Your task to perform on an android device: delete location history Image 0: 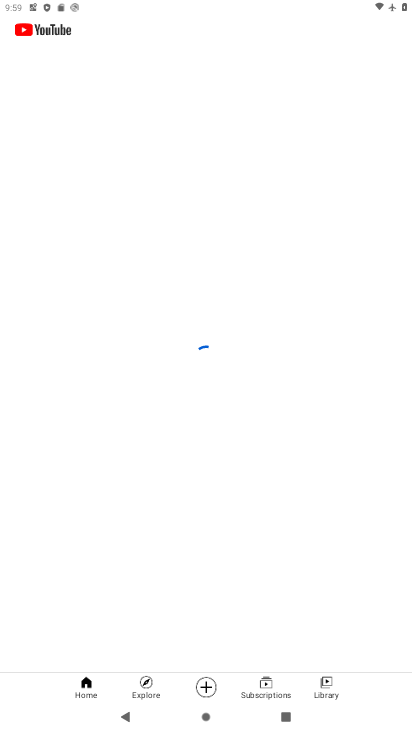
Step 0: drag from (294, 2) to (354, 8)
Your task to perform on an android device: delete location history Image 1: 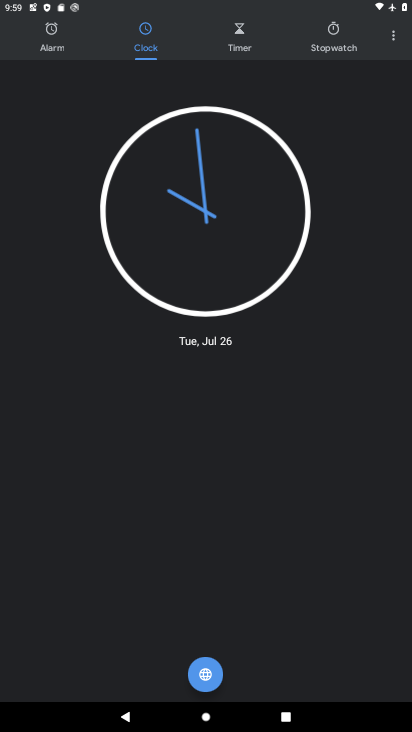
Step 1: press home button
Your task to perform on an android device: delete location history Image 2: 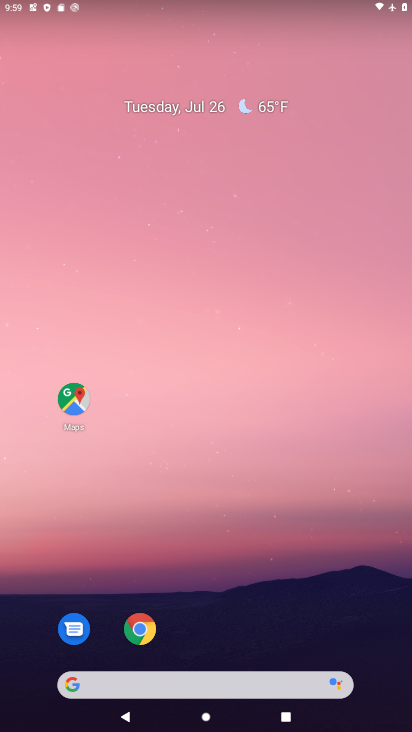
Step 2: drag from (239, 584) to (239, 71)
Your task to perform on an android device: delete location history Image 3: 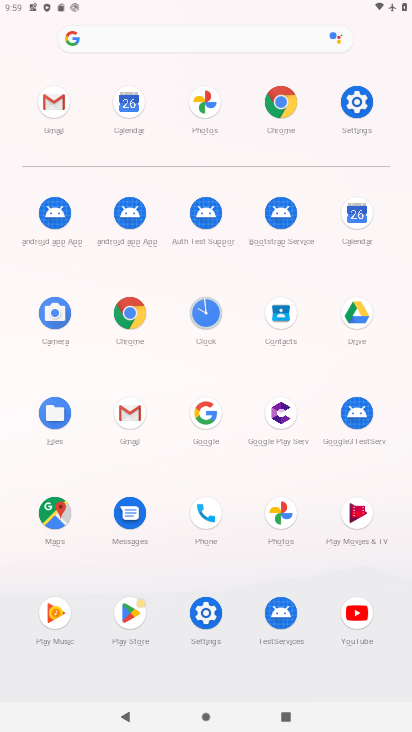
Step 3: click (57, 507)
Your task to perform on an android device: delete location history Image 4: 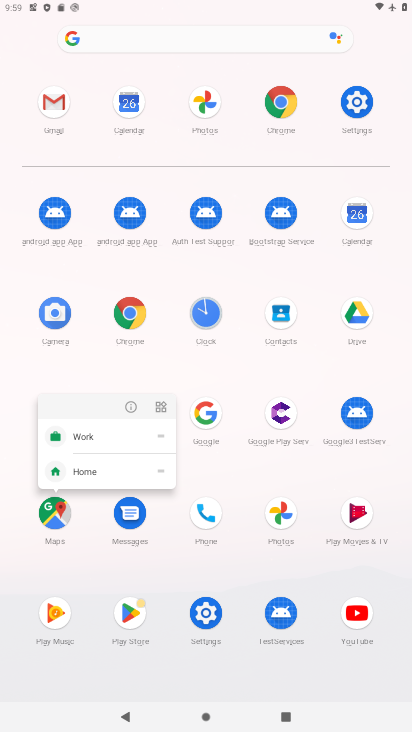
Step 4: click (51, 501)
Your task to perform on an android device: delete location history Image 5: 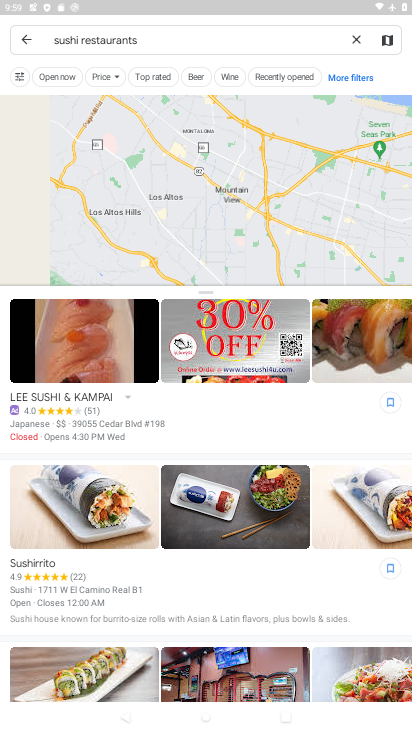
Step 5: click (32, 34)
Your task to perform on an android device: delete location history Image 6: 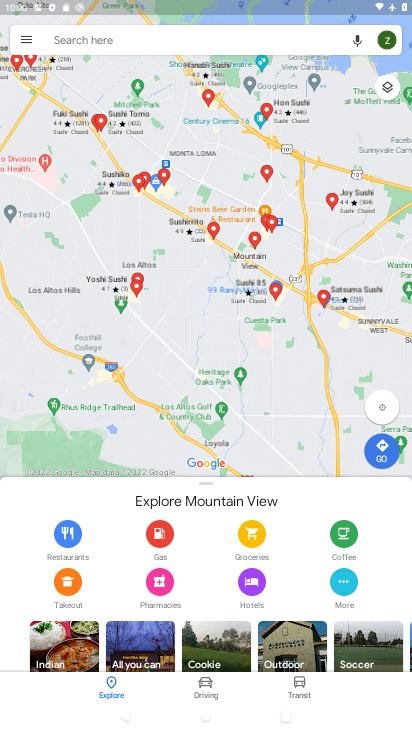
Step 6: click (23, 38)
Your task to perform on an android device: delete location history Image 7: 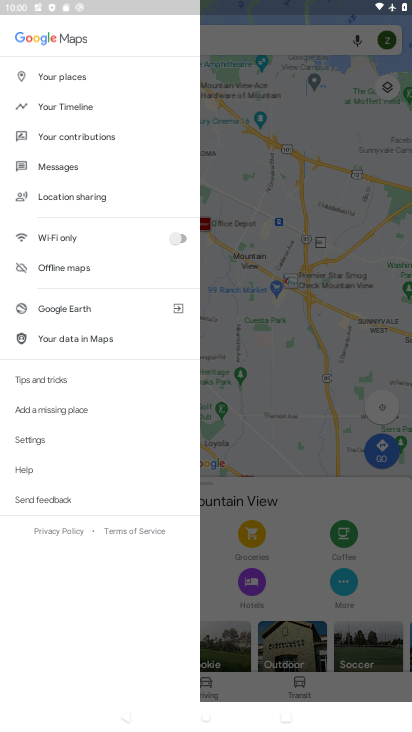
Step 7: click (41, 433)
Your task to perform on an android device: delete location history Image 8: 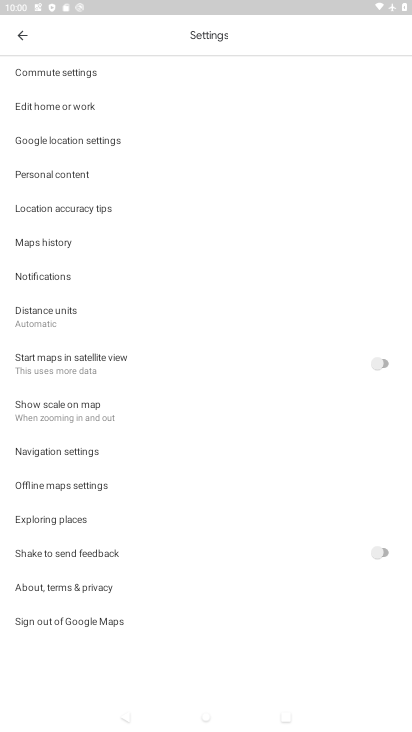
Step 8: click (54, 239)
Your task to perform on an android device: delete location history Image 9: 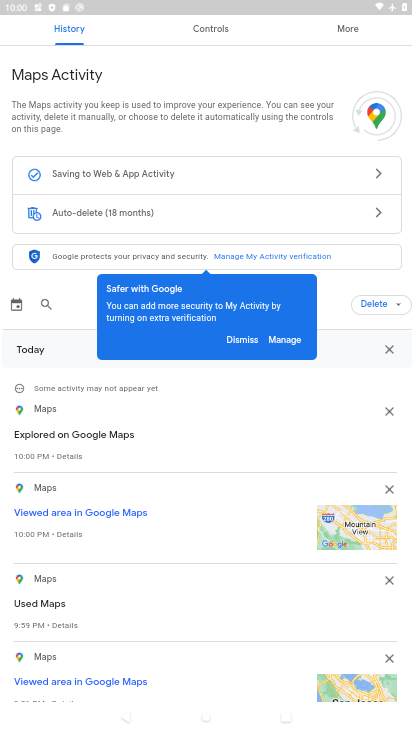
Step 9: click (378, 299)
Your task to perform on an android device: delete location history Image 10: 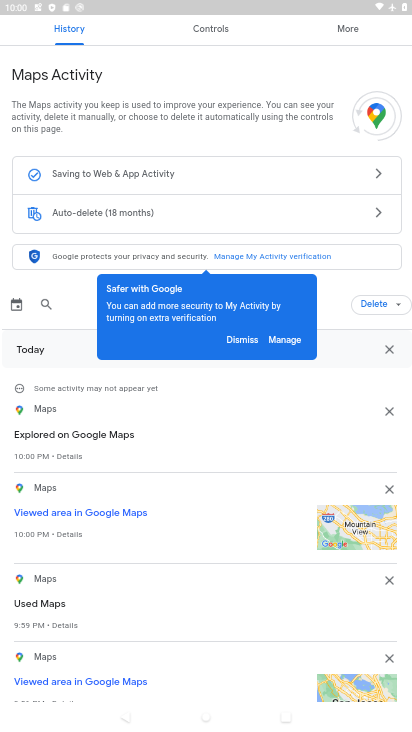
Step 10: click (236, 341)
Your task to perform on an android device: delete location history Image 11: 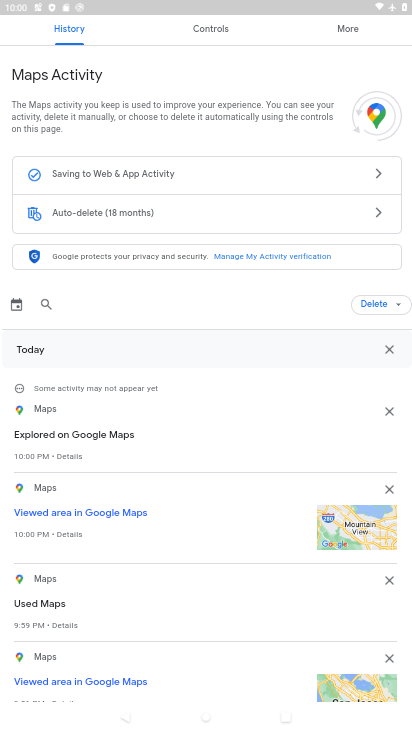
Step 11: click (396, 307)
Your task to perform on an android device: delete location history Image 12: 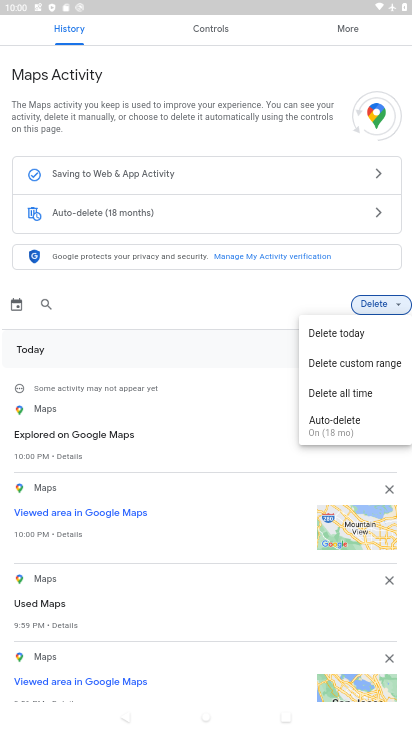
Step 12: click (397, 303)
Your task to perform on an android device: delete location history Image 13: 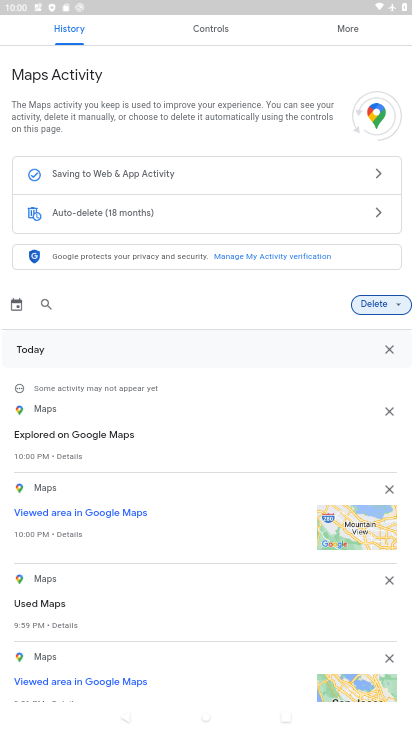
Step 13: click (397, 303)
Your task to perform on an android device: delete location history Image 14: 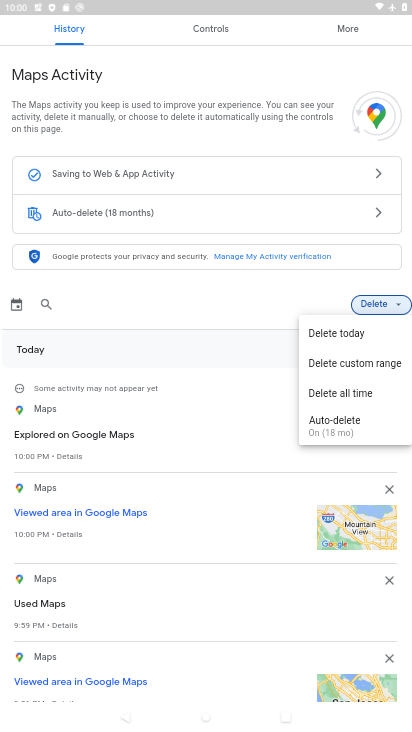
Step 14: click (368, 394)
Your task to perform on an android device: delete location history Image 15: 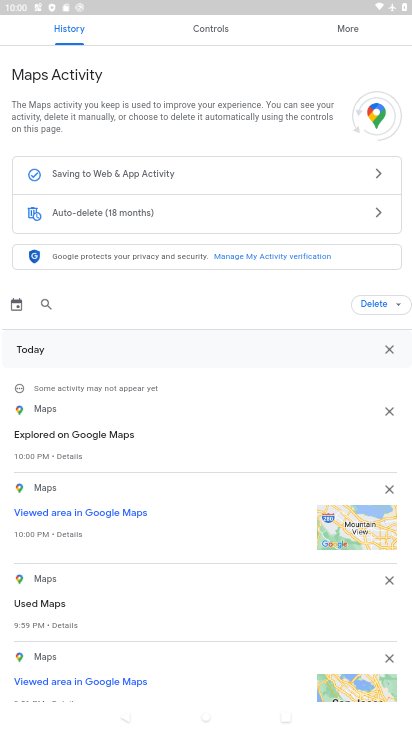
Step 15: click (381, 303)
Your task to perform on an android device: delete location history Image 16: 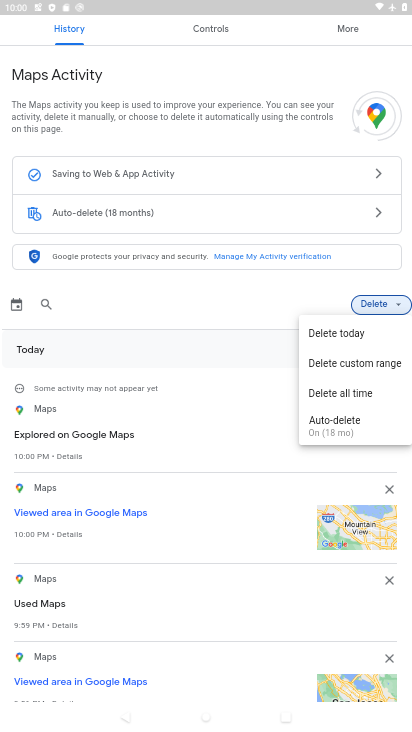
Step 16: click (325, 392)
Your task to perform on an android device: delete location history Image 17: 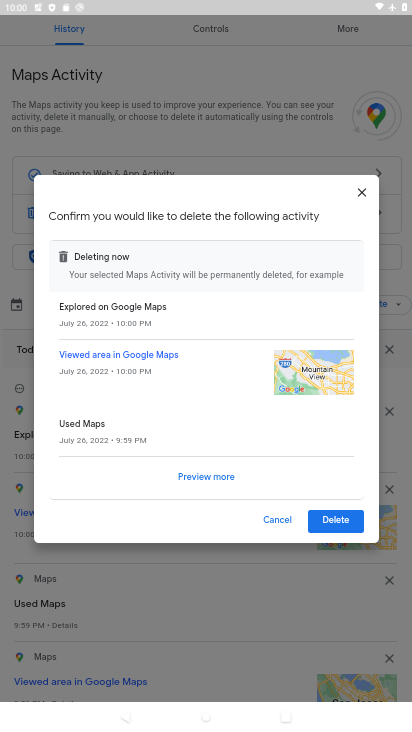
Step 17: click (325, 524)
Your task to perform on an android device: delete location history Image 18: 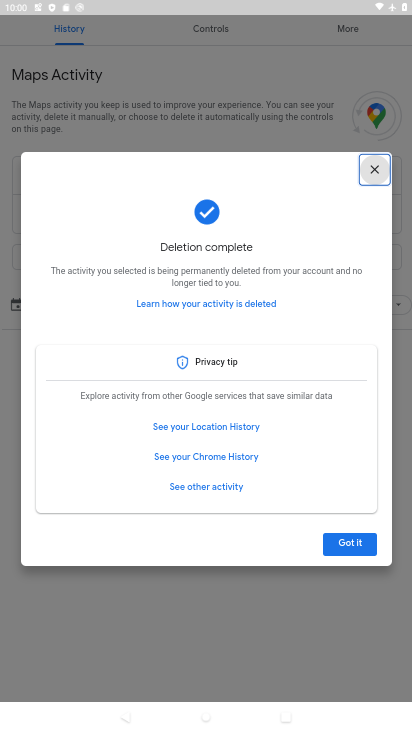
Step 18: task complete